Your task to perform on an android device: empty trash in google photos Image 0: 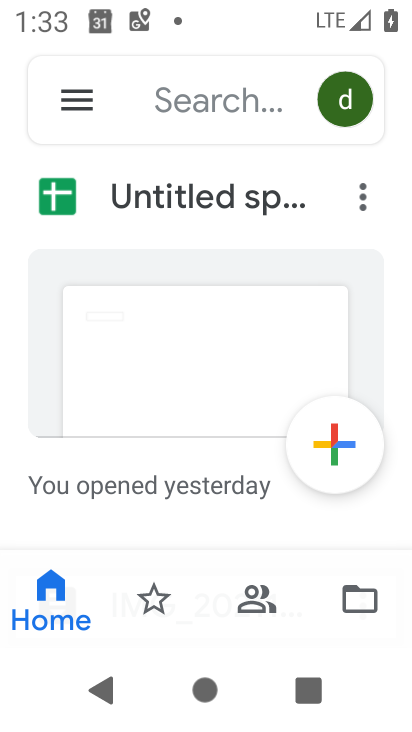
Step 0: press home button
Your task to perform on an android device: empty trash in google photos Image 1: 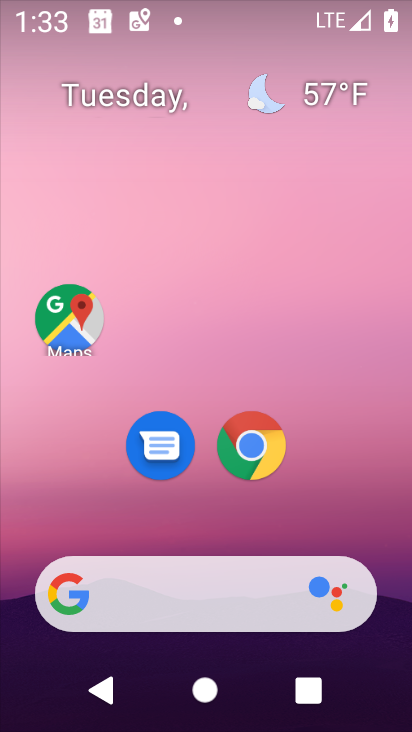
Step 1: drag from (338, 508) to (365, 138)
Your task to perform on an android device: empty trash in google photos Image 2: 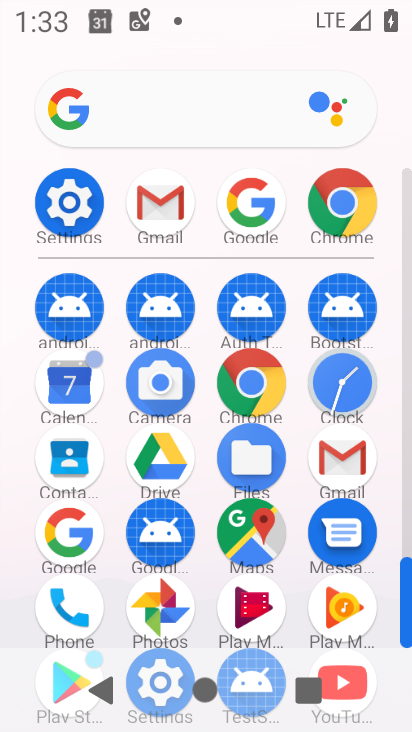
Step 2: click (169, 610)
Your task to perform on an android device: empty trash in google photos Image 3: 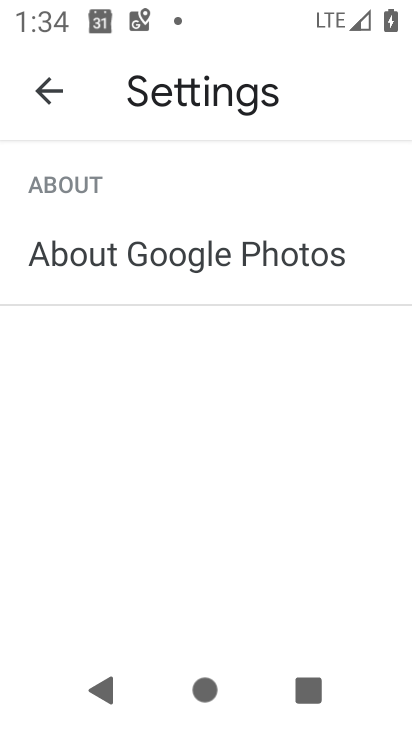
Step 3: press back button
Your task to perform on an android device: empty trash in google photos Image 4: 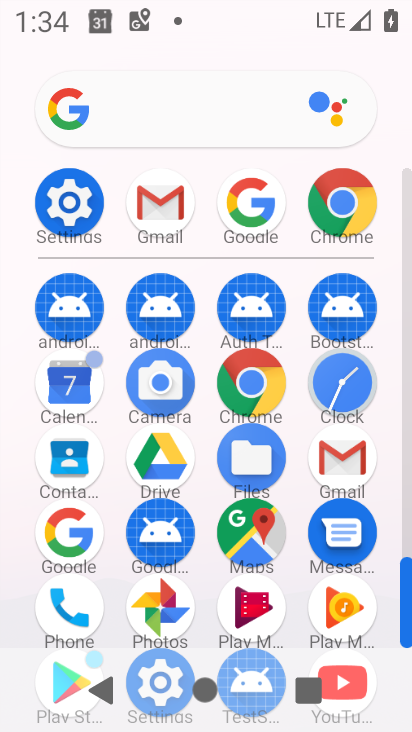
Step 4: click (172, 608)
Your task to perform on an android device: empty trash in google photos Image 5: 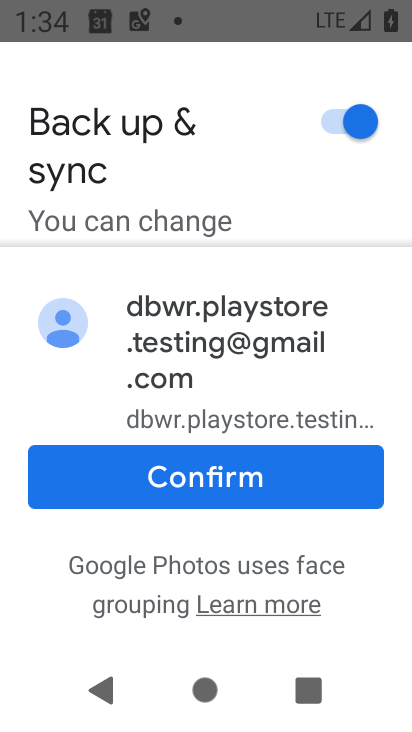
Step 5: click (316, 480)
Your task to perform on an android device: empty trash in google photos Image 6: 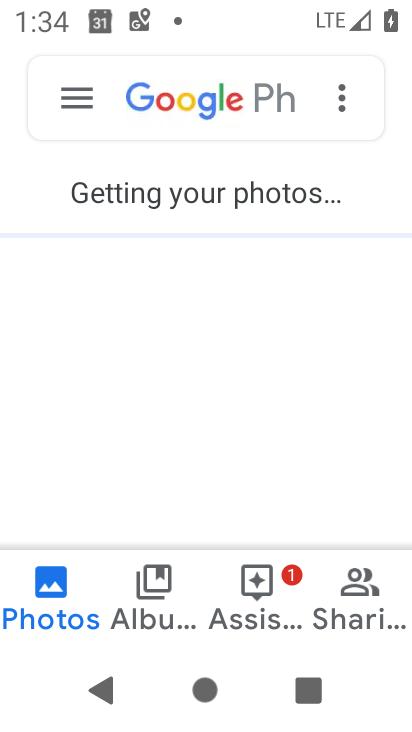
Step 6: click (78, 107)
Your task to perform on an android device: empty trash in google photos Image 7: 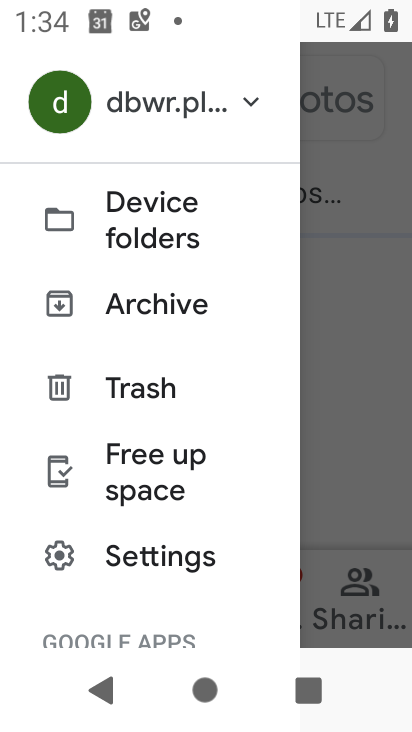
Step 7: drag from (249, 397) to (263, 263)
Your task to perform on an android device: empty trash in google photos Image 8: 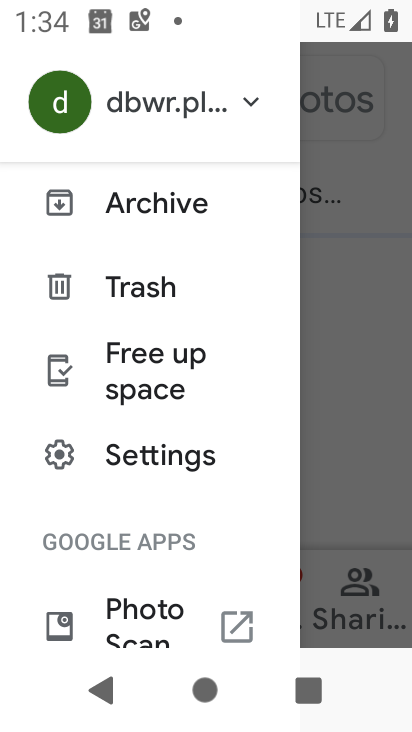
Step 8: drag from (248, 452) to (241, 304)
Your task to perform on an android device: empty trash in google photos Image 9: 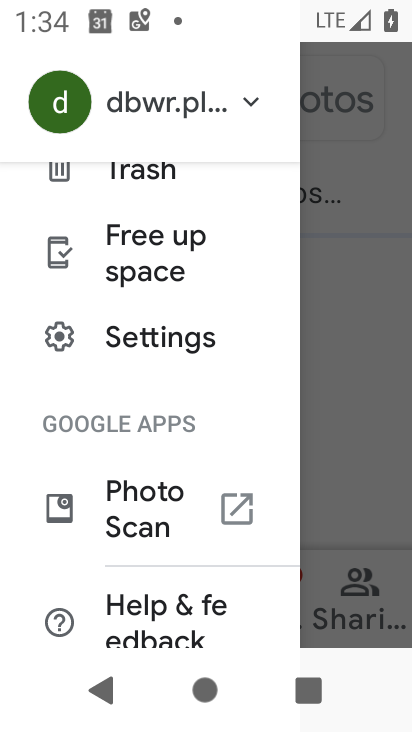
Step 9: drag from (248, 437) to (242, 244)
Your task to perform on an android device: empty trash in google photos Image 10: 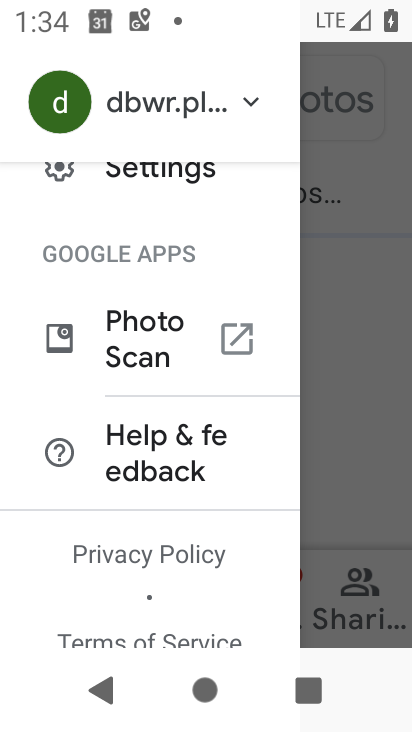
Step 10: drag from (230, 225) to (234, 437)
Your task to perform on an android device: empty trash in google photos Image 11: 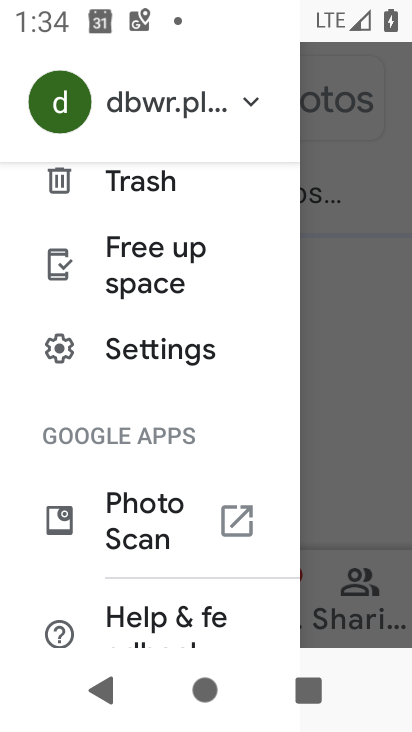
Step 11: drag from (233, 212) to (235, 403)
Your task to perform on an android device: empty trash in google photos Image 12: 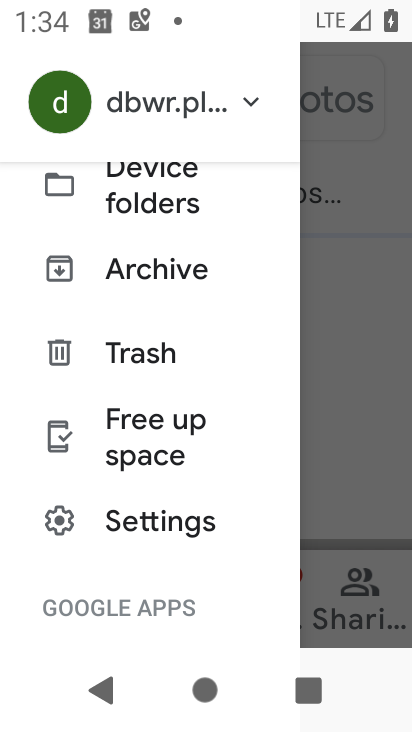
Step 12: click (159, 362)
Your task to perform on an android device: empty trash in google photos Image 13: 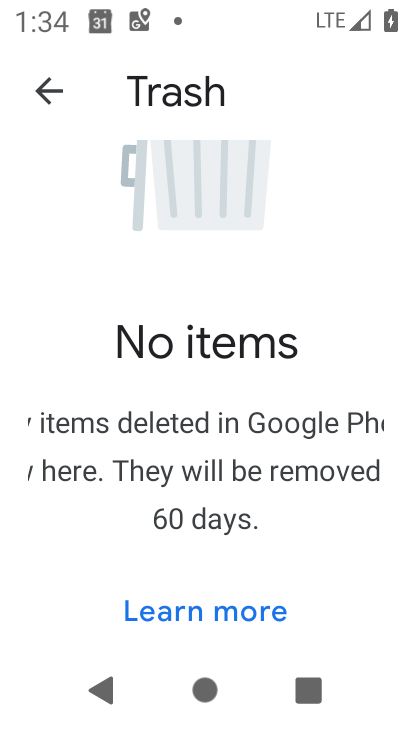
Step 13: task complete